Your task to perform on an android device: turn on wifi Image 0: 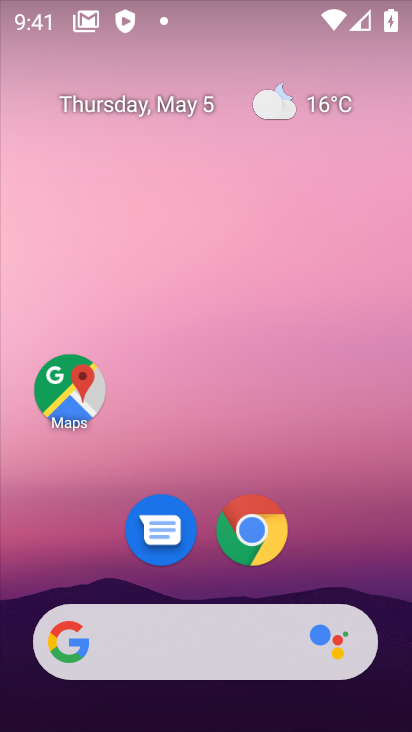
Step 0: drag from (1, 55) to (30, 1)
Your task to perform on an android device: turn on wifi Image 1: 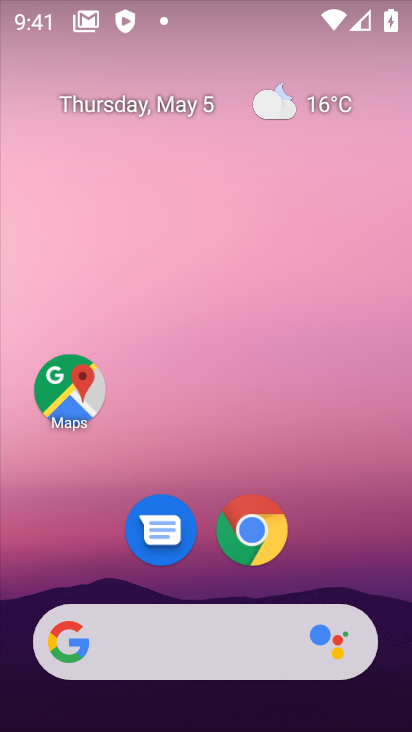
Step 1: drag from (370, 555) to (163, 4)
Your task to perform on an android device: turn on wifi Image 2: 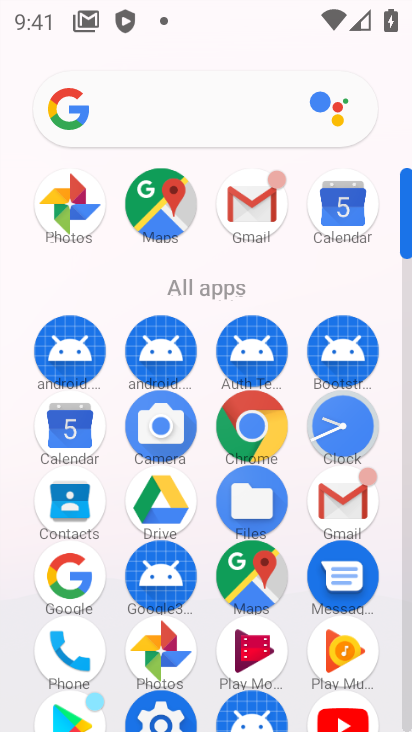
Step 2: drag from (304, 621) to (218, 5)
Your task to perform on an android device: turn on wifi Image 3: 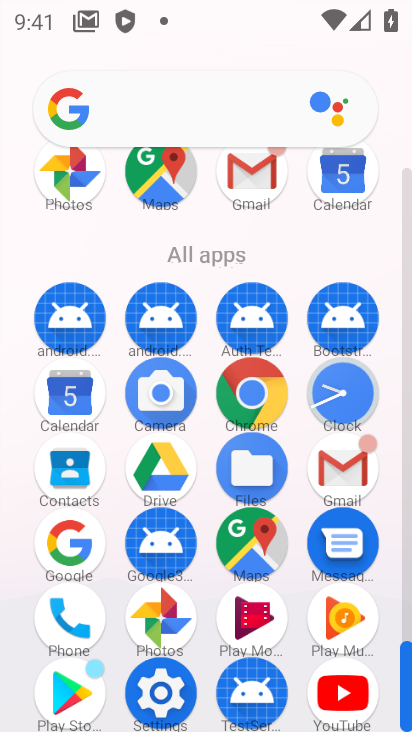
Step 3: click (159, 692)
Your task to perform on an android device: turn on wifi Image 4: 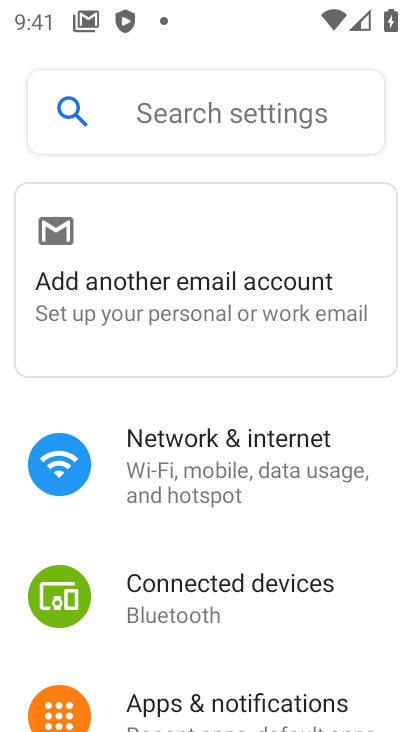
Step 4: click (206, 456)
Your task to perform on an android device: turn on wifi Image 5: 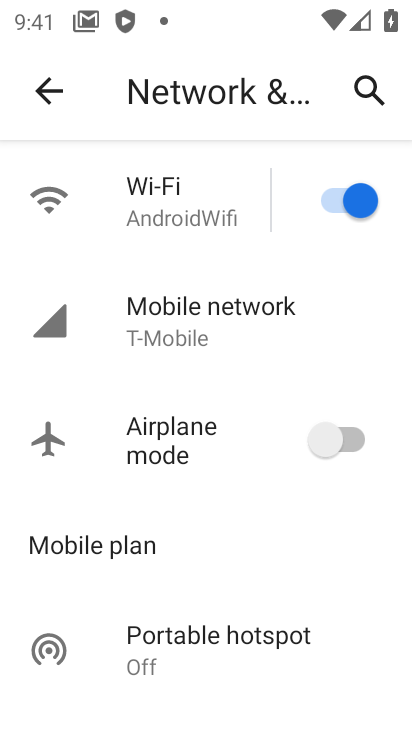
Step 5: task complete